Your task to perform on an android device: Open ESPN.com Image 0: 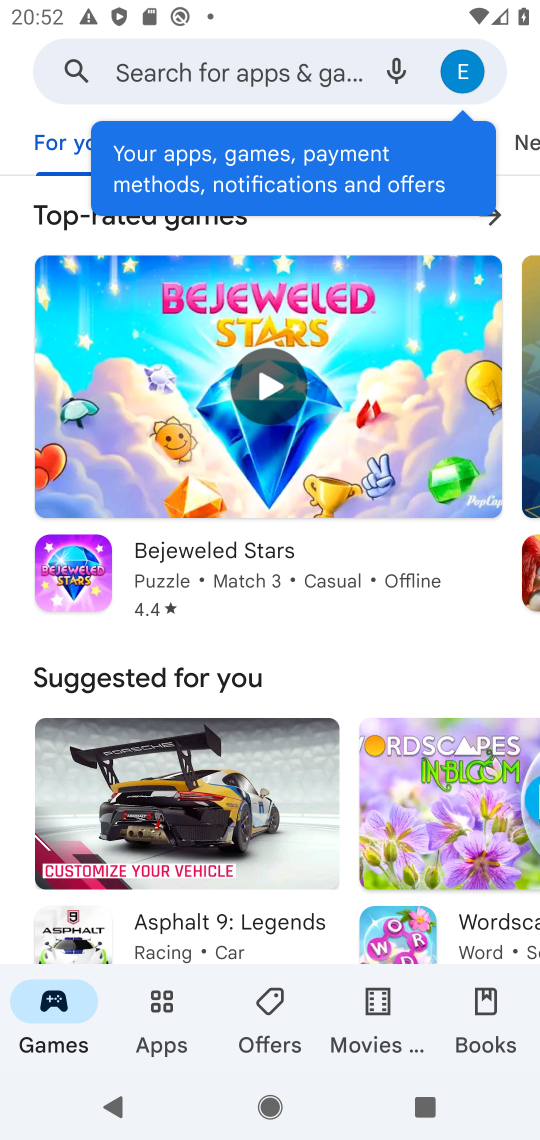
Step 0: press home button
Your task to perform on an android device: Open ESPN.com Image 1: 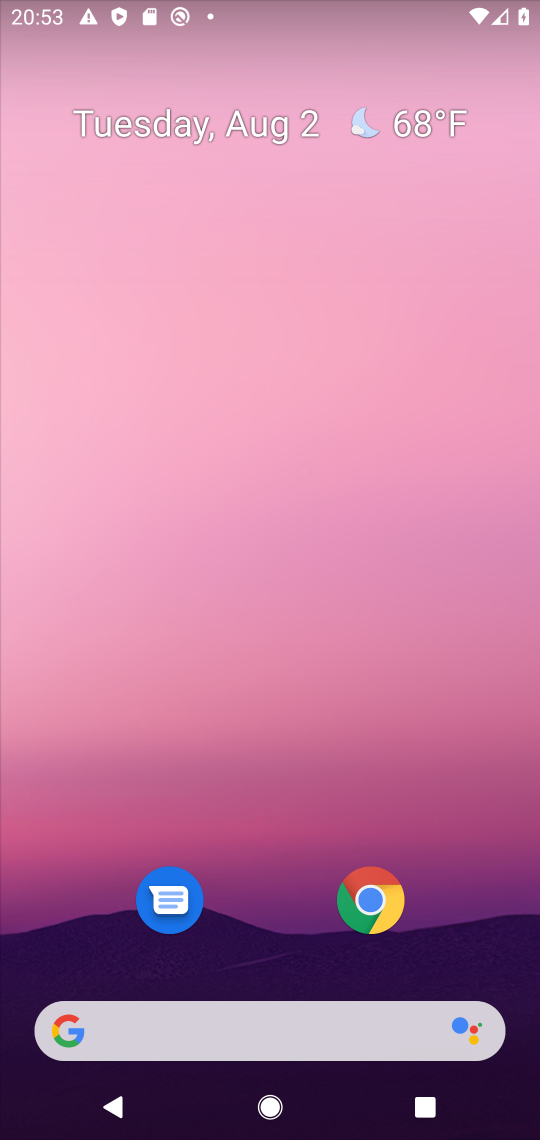
Step 1: click (339, 1020)
Your task to perform on an android device: Open ESPN.com Image 2: 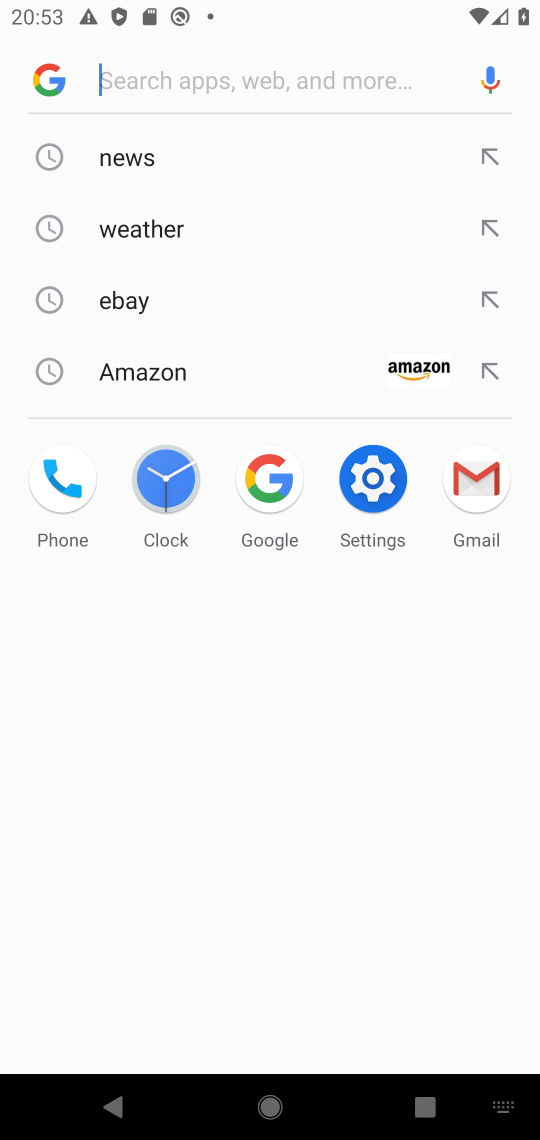
Step 2: type "espn.com"
Your task to perform on an android device: Open ESPN.com Image 3: 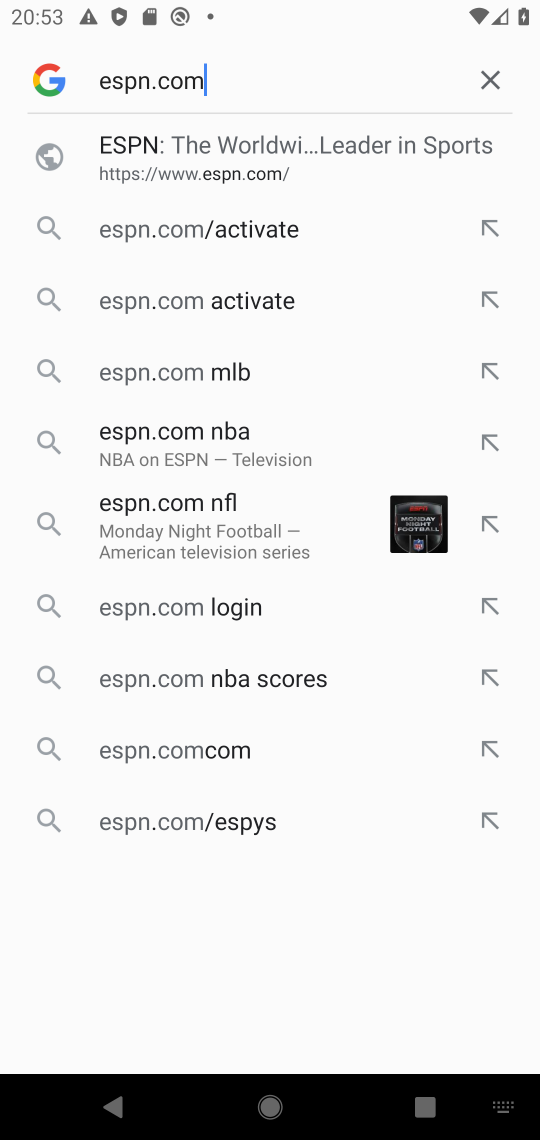
Step 3: click (300, 168)
Your task to perform on an android device: Open ESPN.com Image 4: 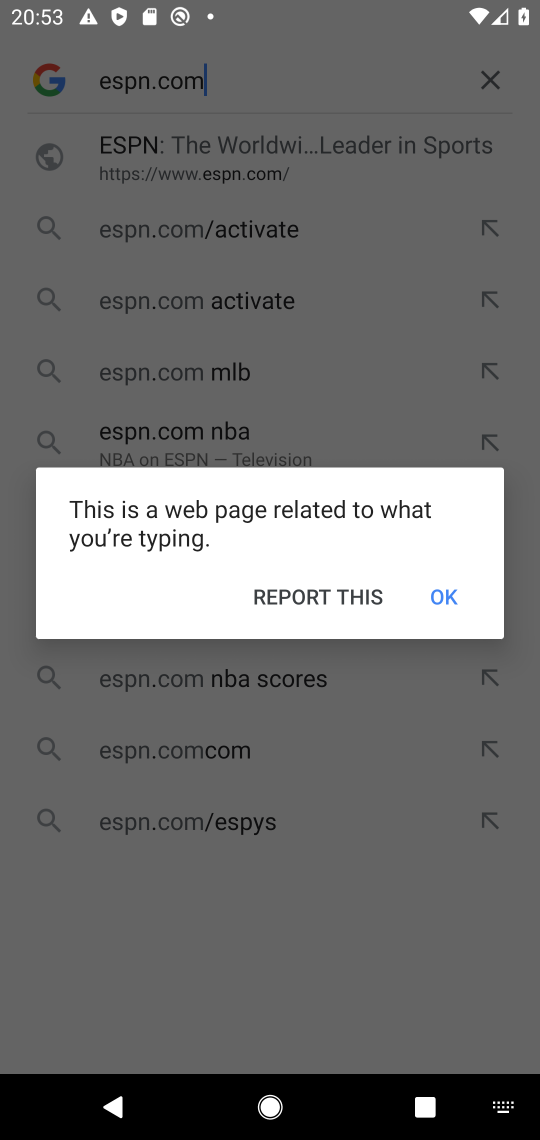
Step 4: click (441, 594)
Your task to perform on an android device: Open ESPN.com Image 5: 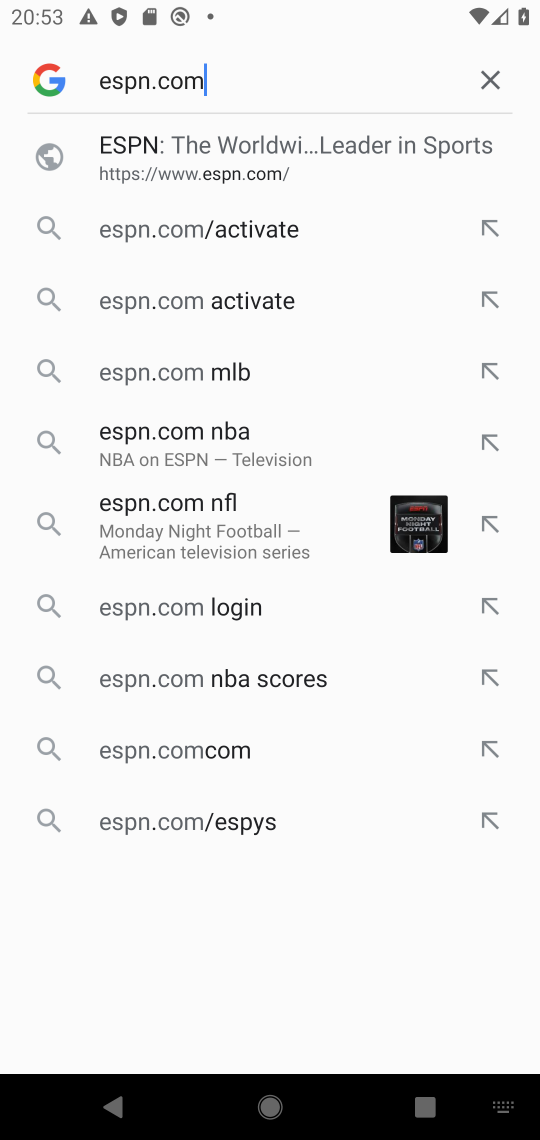
Step 5: click (254, 152)
Your task to perform on an android device: Open ESPN.com Image 6: 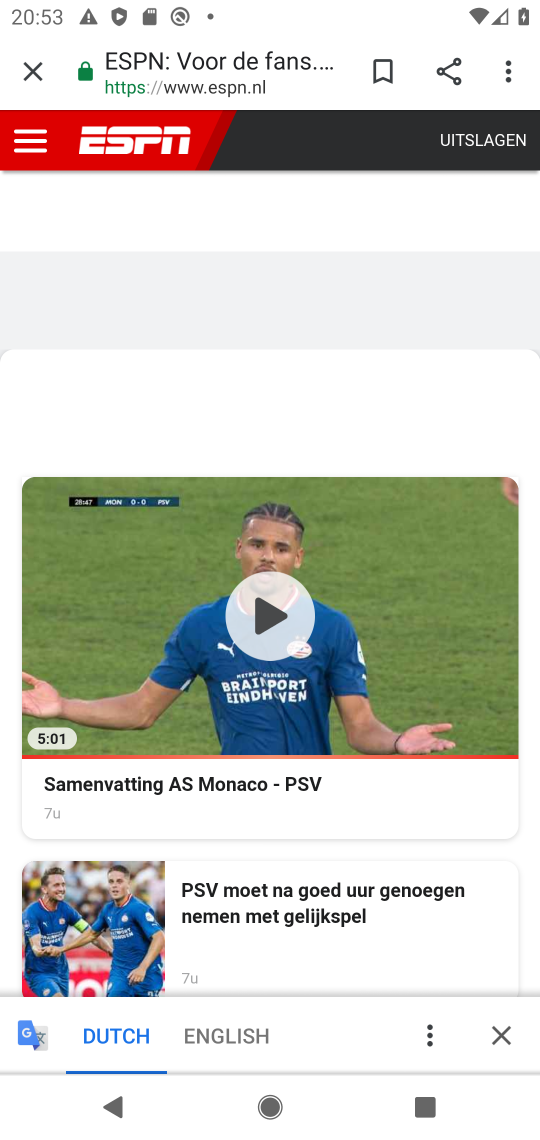
Step 6: task complete